Your task to perform on an android device: turn on improve location accuracy Image 0: 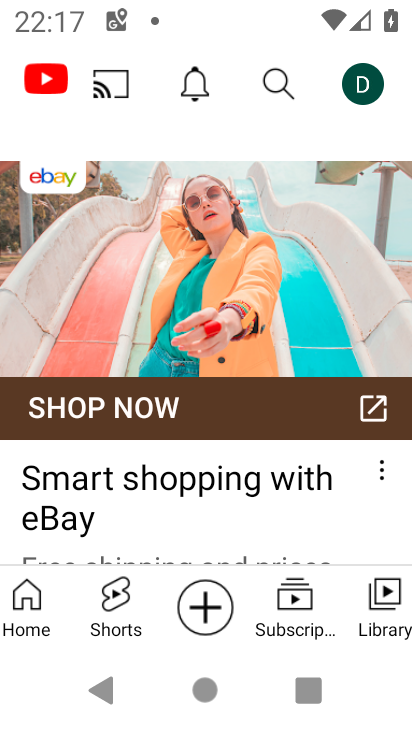
Step 0: press home button
Your task to perform on an android device: turn on improve location accuracy Image 1: 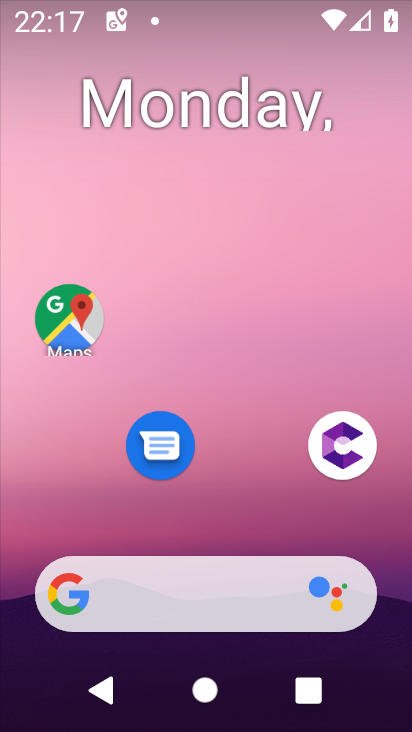
Step 1: drag from (246, 529) to (239, 0)
Your task to perform on an android device: turn on improve location accuracy Image 2: 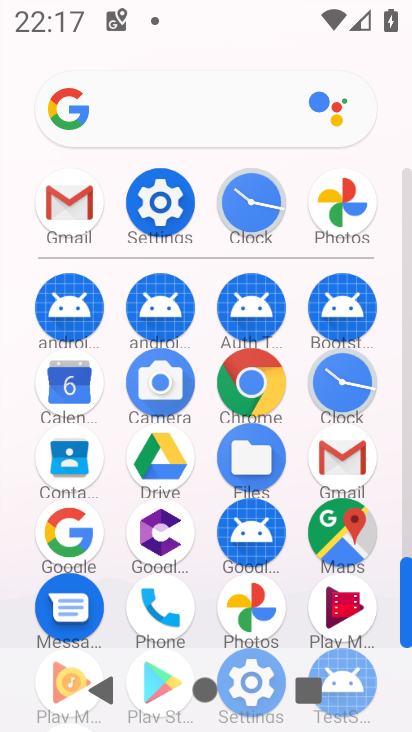
Step 2: click (152, 209)
Your task to perform on an android device: turn on improve location accuracy Image 3: 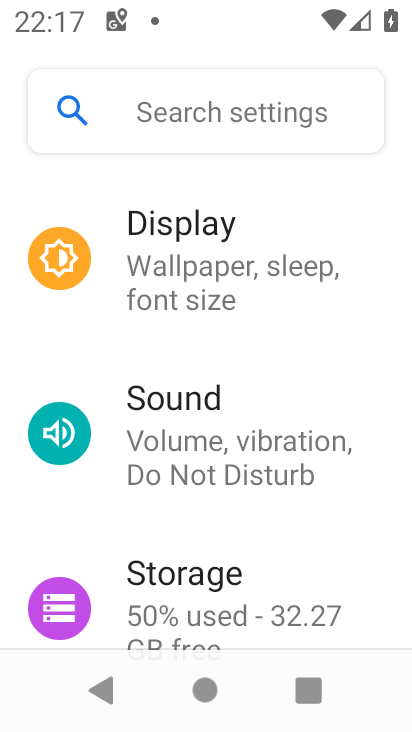
Step 3: drag from (48, 341) to (128, 731)
Your task to perform on an android device: turn on improve location accuracy Image 4: 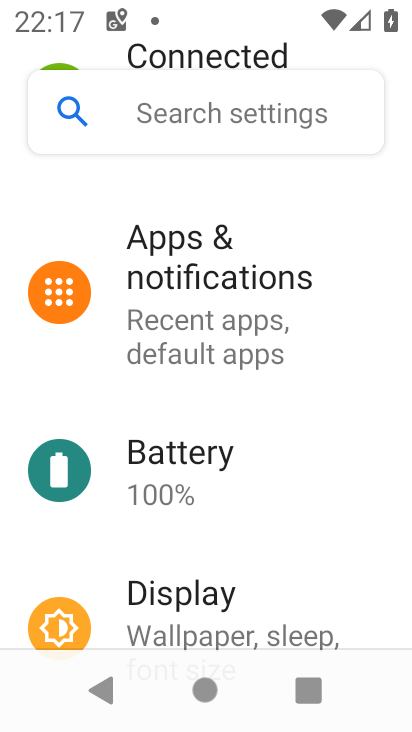
Step 4: drag from (80, 388) to (197, 76)
Your task to perform on an android device: turn on improve location accuracy Image 5: 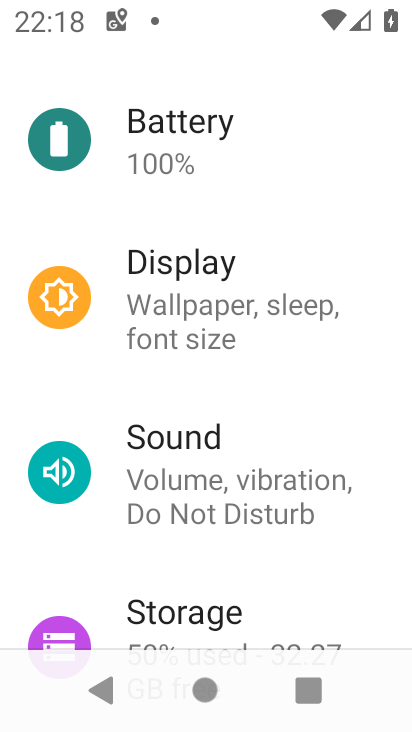
Step 5: drag from (107, 561) to (131, 174)
Your task to perform on an android device: turn on improve location accuracy Image 6: 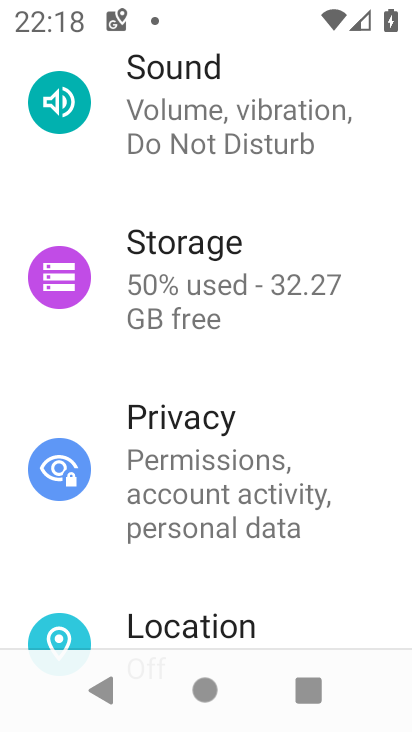
Step 6: click (150, 636)
Your task to perform on an android device: turn on improve location accuracy Image 7: 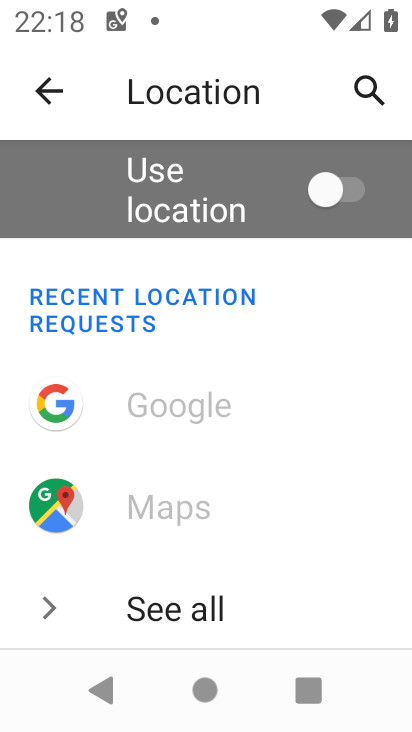
Step 7: drag from (80, 577) to (155, 168)
Your task to perform on an android device: turn on improve location accuracy Image 8: 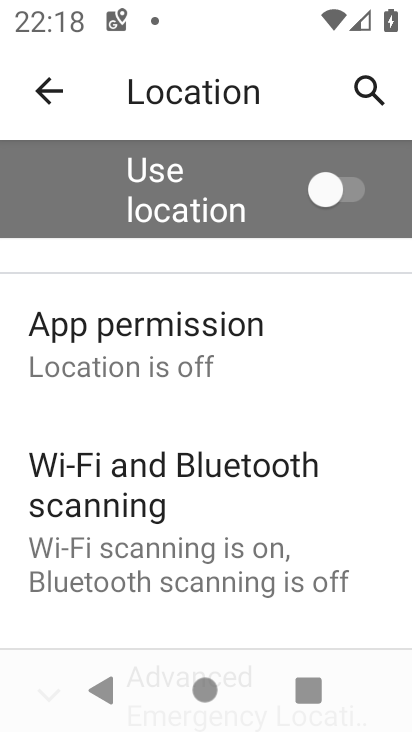
Step 8: drag from (70, 621) to (120, 339)
Your task to perform on an android device: turn on improve location accuracy Image 9: 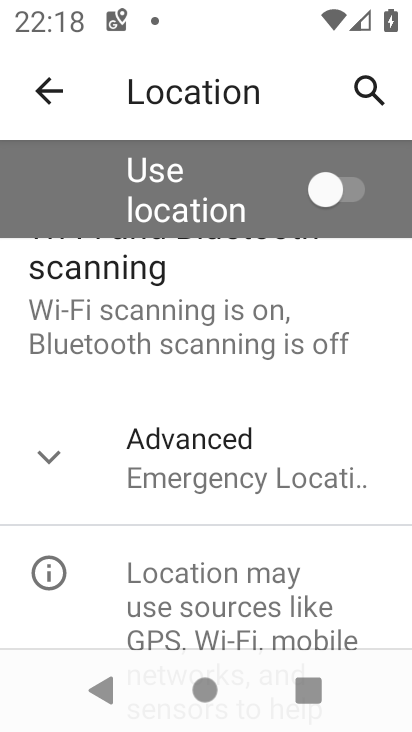
Step 9: click (64, 471)
Your task to perform on an android device: turn on improve location accuracy Image 10: 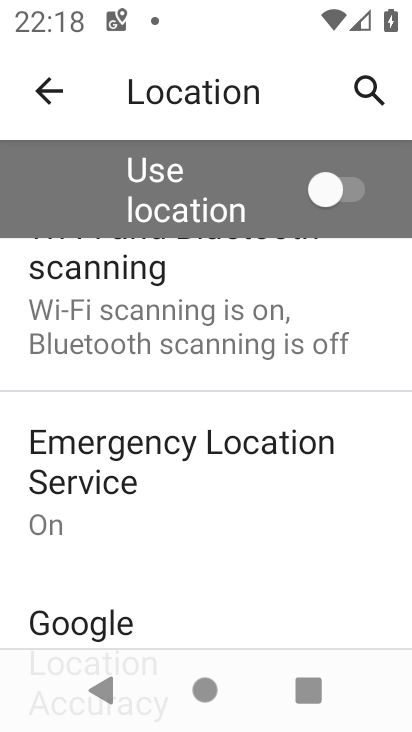
Step 10: drag from (160, 617) to (208, 289)
Your task to perform on an android device: turn on improve location accuracy Image 11: 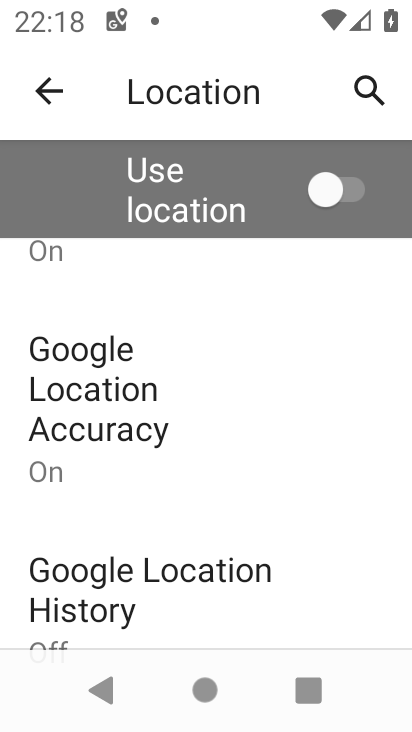
Step 11: click (63, 432)
Your task to perform on an android device: turn on improve location accuracy Image 12: 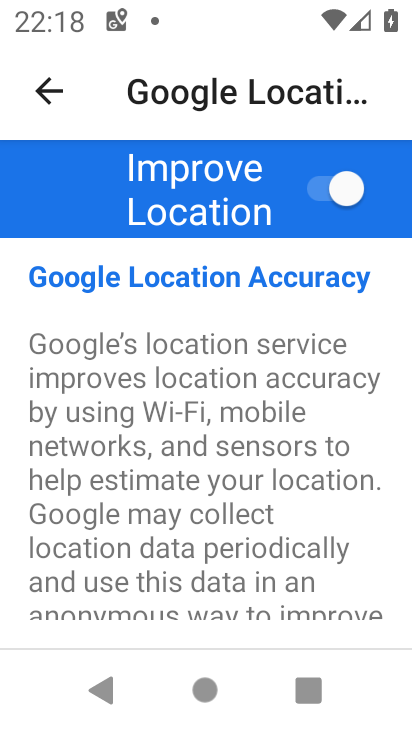
Step 12: task complete